Your task to perform on an android device: What's the weather going to be this weekend? Image 0: 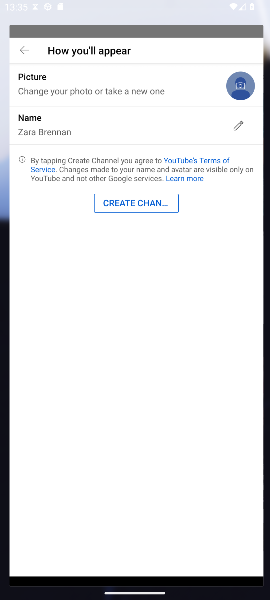
Step 0: press home button
Your task to perform on an android device: What's the weather going to be this weekend? Image 1: 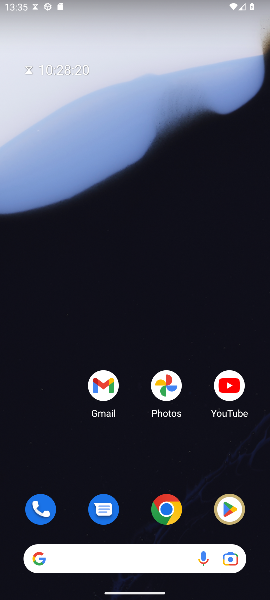
Step 1: press home button
Your task to perform on an android device: What's the weather going to be this weekend? Image 2: 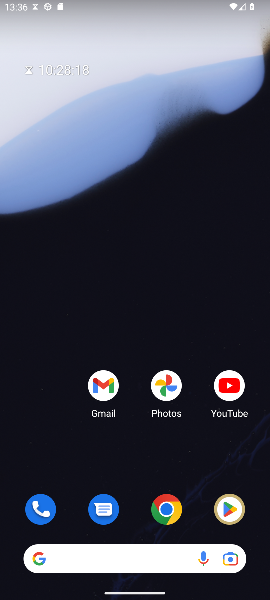
Step 2: click (58, 279)
Your task to perform on an android device: What's the weather going to be this weekend? Image 3: 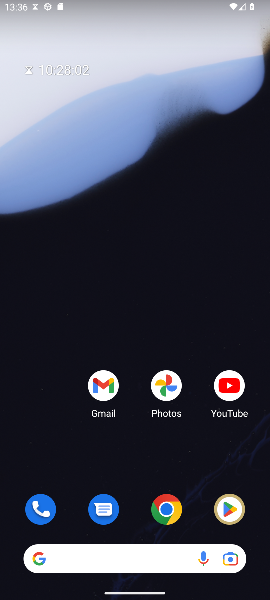
Step 3: drag from (136, 517) to (163, 151)
Your task to perform on an android device: What's the weather going to be this weekend? Image 4: 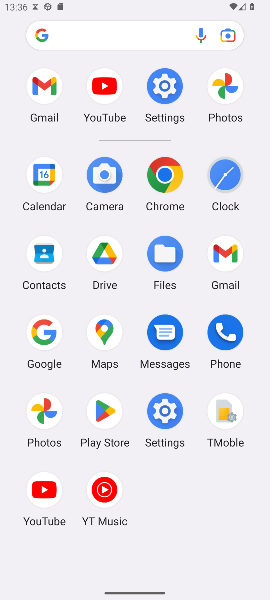
Step 4: click (47, 343)
Your task to perform on an android device: What's the weather going to be this weekend? Image 5: 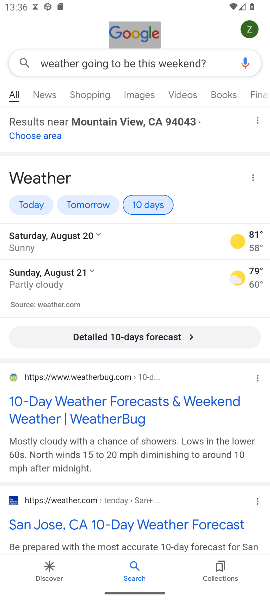
Step 5: click (225, 55)
Your task to perform on an android device: What's the weather going to be this weekend? Image 6: 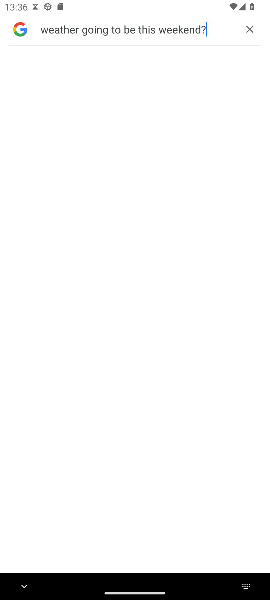
Step 6: click (252, 23)
Your task to perform on an android device: What's the weather going to be this weekend? Image 7: 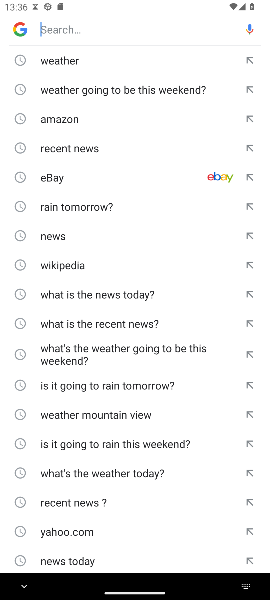
Step 7: type " weather going to be this weekend?"
Your task to perform on an android device: What's the weather going to be this weekend? Image 8: 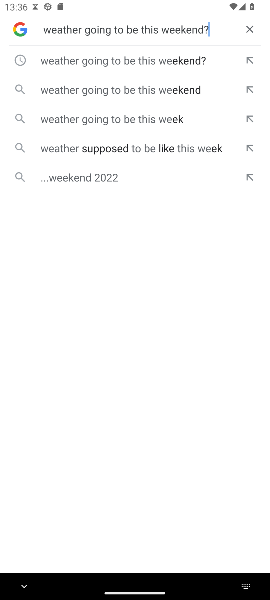
Step 8: press enter
Your task to perform on an android device: What's the weather going to be this weekend? Image 9: 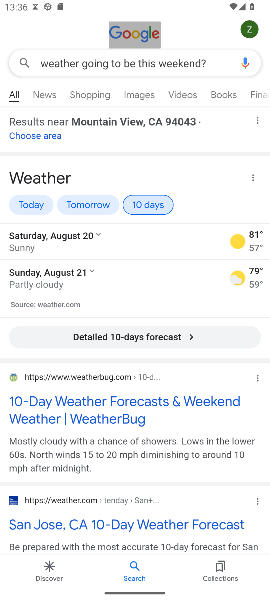
Step 9: task complete